Your task to perform on an android device: Open calendar and show me the fourth week of next month Image 0: 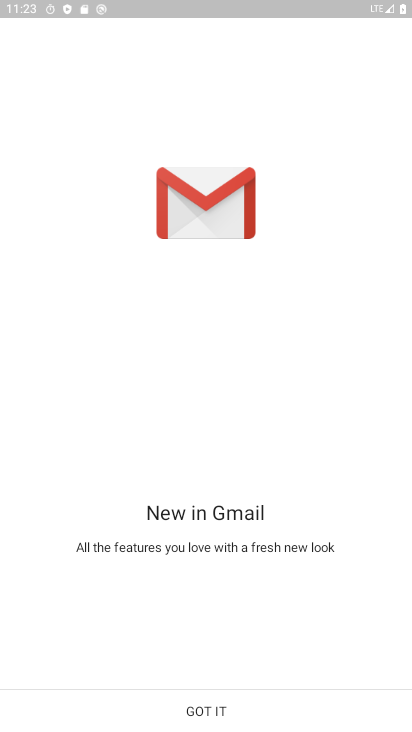
Step 0: press home button
Your task to perform on an android device: Open calendar and show me the fourth week of next month Image 1: 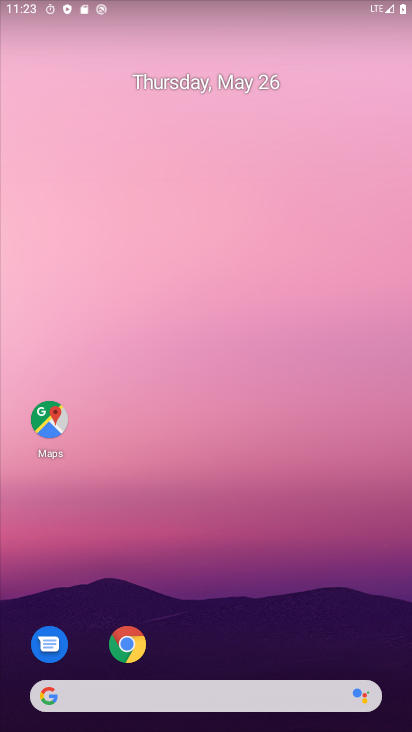
Step 1: drag from (123, 728) to (184, 11)
Your task to perform on an android device: Open calendar and show me the fourth week of next month Image 2: 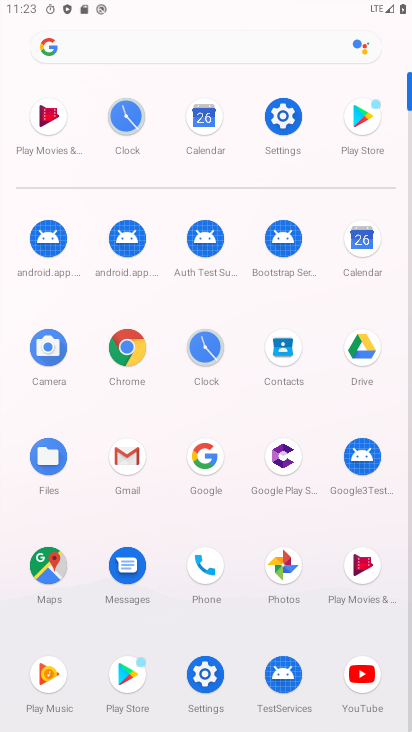
Step 2: click (368, 246)
Your task to perform on an android device: Open calendar and show me the fourth week of next month Image 3: 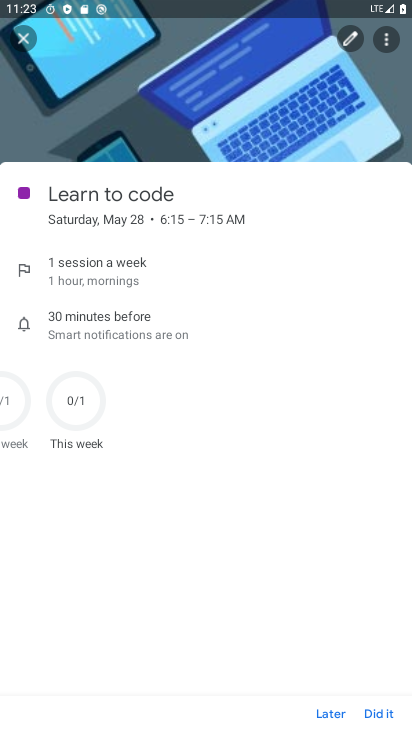
Step 3: click (27, 44)
Your task to perform on an android device: Open calendar and show me the fourth week of next month Image 4: 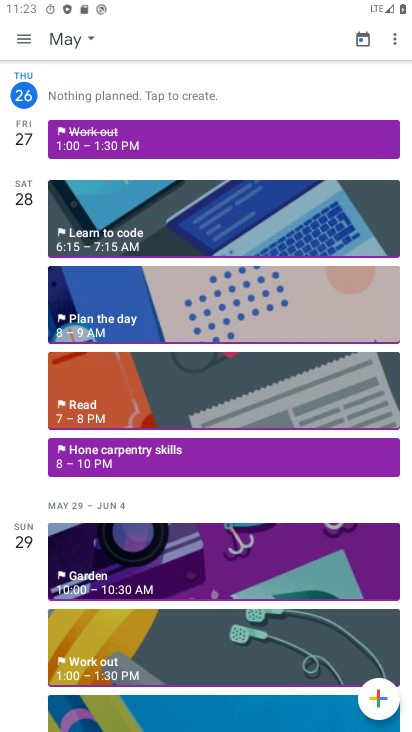
Step 4: click (18, 30)
Your task to perform on an android device: Open calendar and show me the fourth week of next month Image 5: 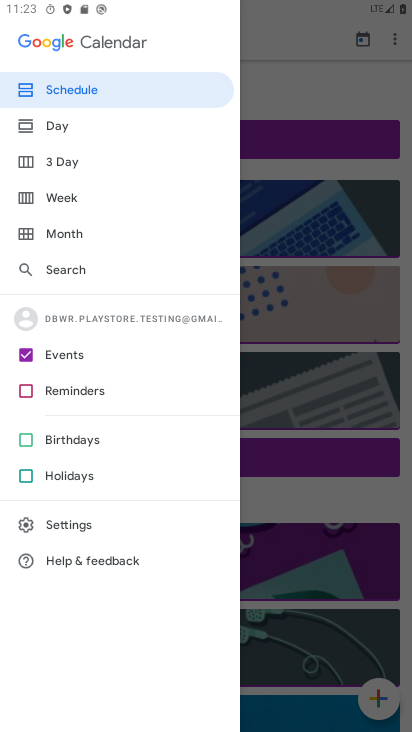
Step 5: click (79, 191)
Your task to perform on an android device: Open calendar and show me the fourth week of next month Image 6: 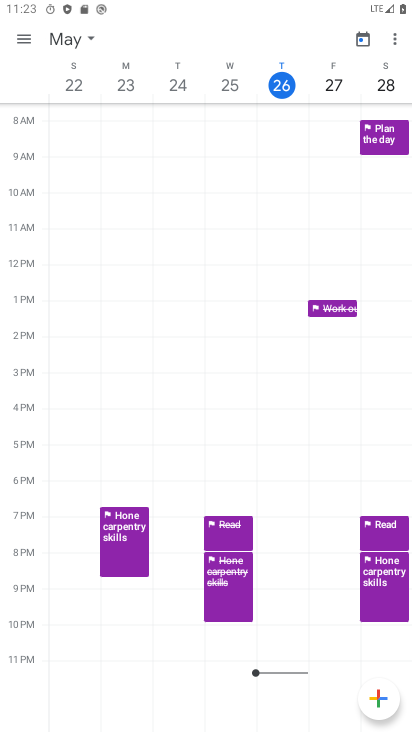
Step 6: click (91, 43)
Your task to perform on an android device: Open calendar and show me the fourth week of next month Image 7: 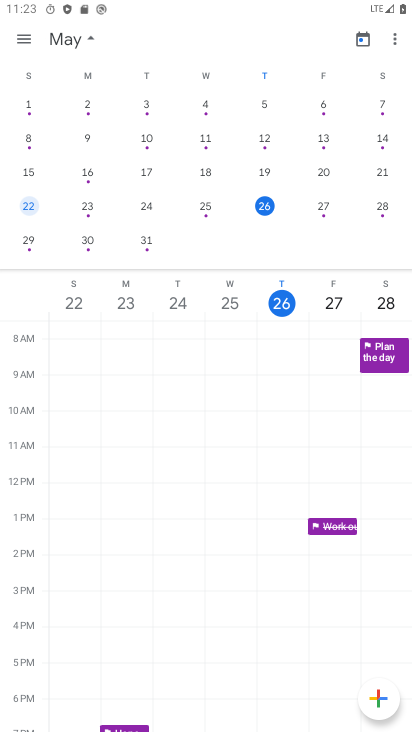
Step 7: drag from (402, 239) to (4, 205)
Your task to perform on an android device: Open calendar and show me the fourth week of next month Image 8: 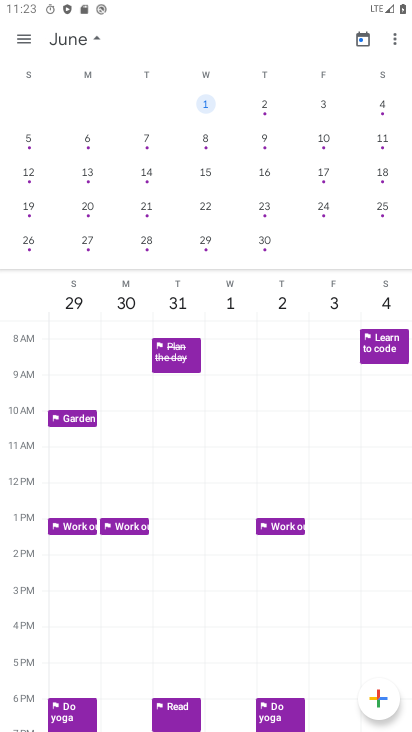
Step 8: click (97, 35)
Your task to perform on an android device: Open calendar and show me the fourth week of next month Image 9: 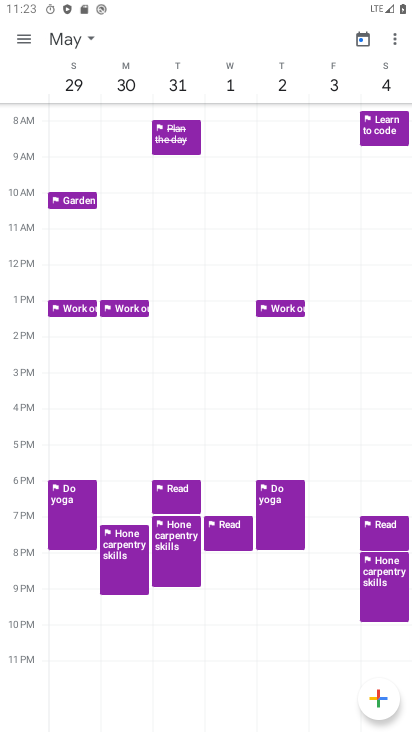
Step 9: task complete